Your task to perform on an android device: Go to display settings Image 0: 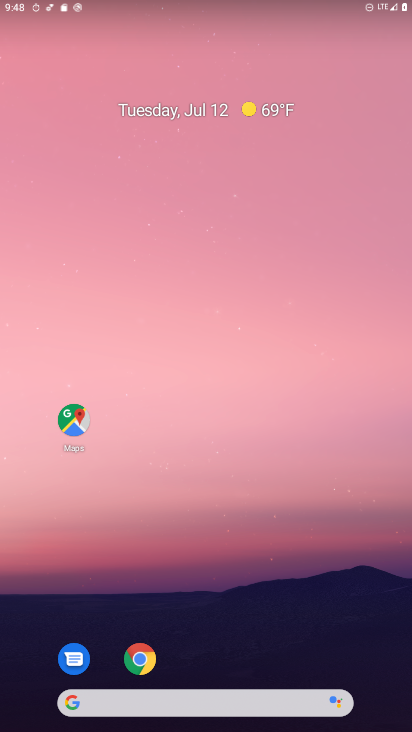
Step 0: drag from (210, 675) to (210, 120)
Your task to perform on an android device: Go to display settings Image 1: 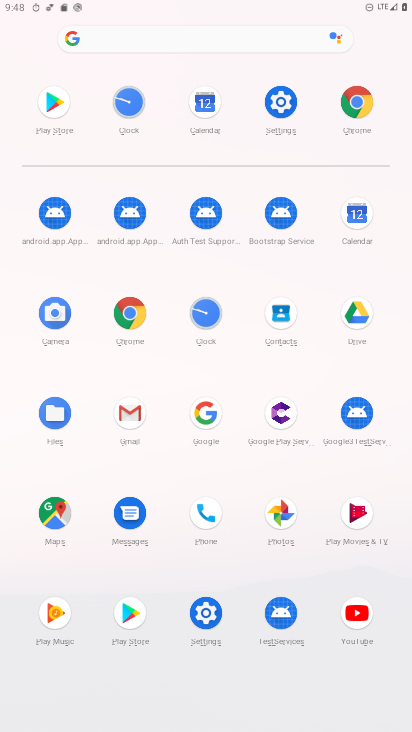
Step 1: click (278, 101)
Your task to perform on an android device: Go to display settings Image 2: 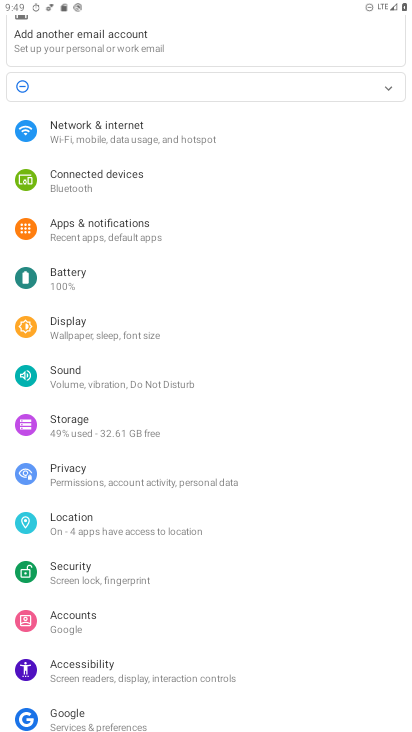
Step 2: click (65, 321)
Your task to perform on an android device: Go to display settings Image 3: 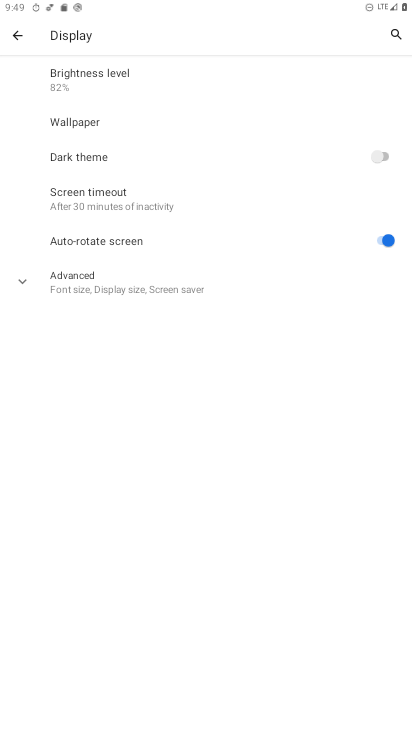
Step 3: task complete